Your task to perform on an android device: refresh tabs in the chrome app Image 0: 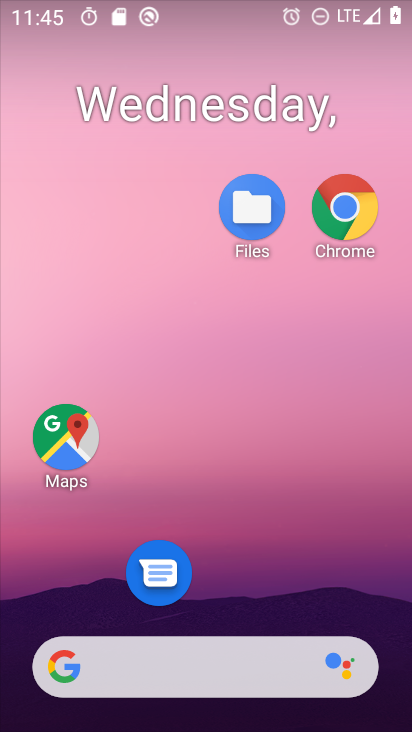
Step 0: drag from (258, 600) to (291, 182)
Your task to perform on an android device: refresh tabs in the chrome app Image 1: 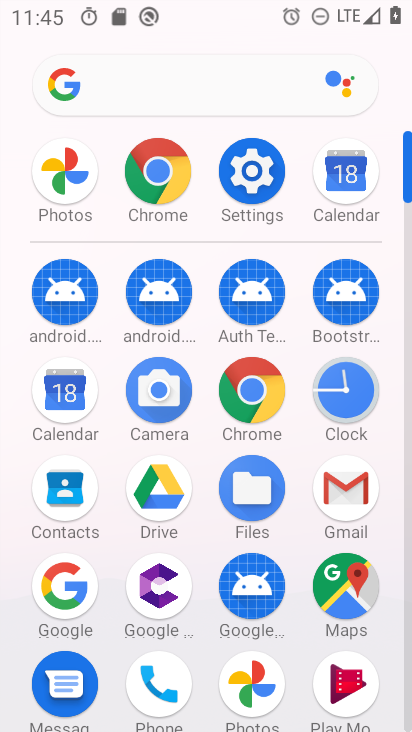
Step 1: click (163, 187)
Your task to perform on an android device: refresh tabs in the chrome app Image 2: 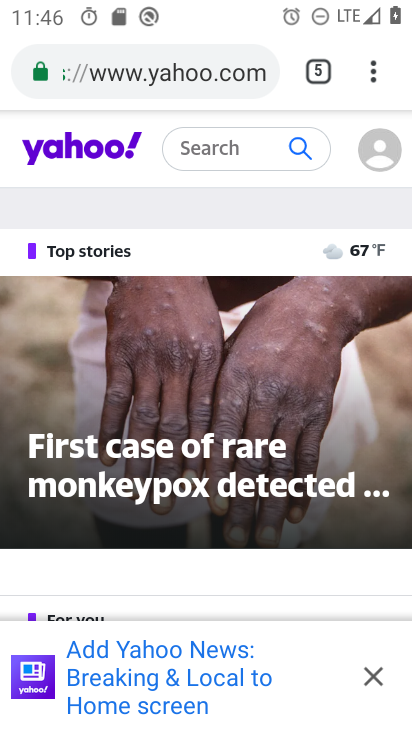
Step 2: click (375, 66)
Your task to perform on an android device: refresh tabs in the chrome app Image 3: 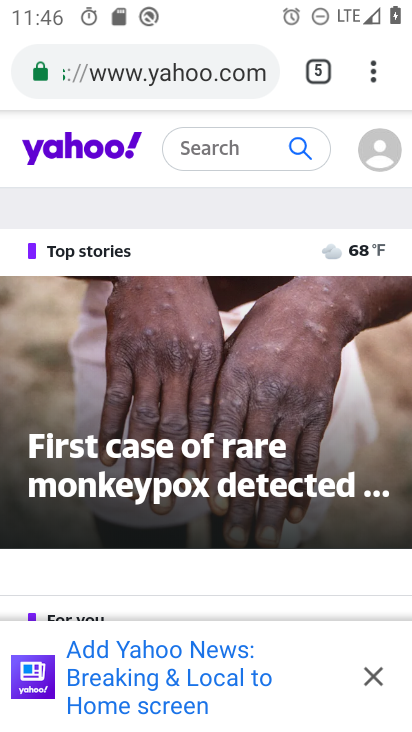
Step 3: task complete